Your task to perform on an android device: change the clock display to analog Image 0: 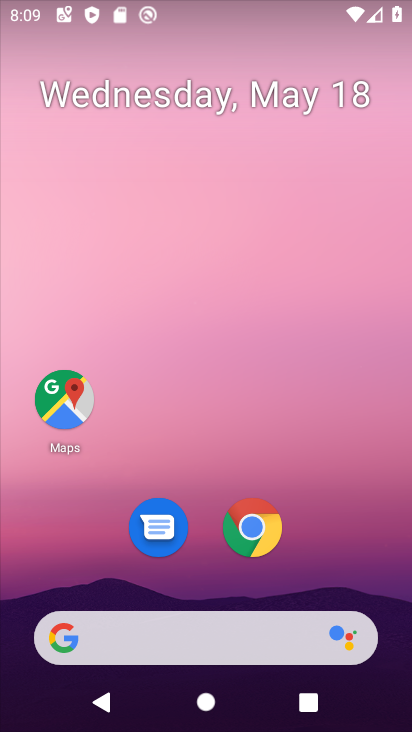
Step 0: drag from (278, 675) to (397, 234)
Your task to perform on an android device: change the clock display to analog Image 1: 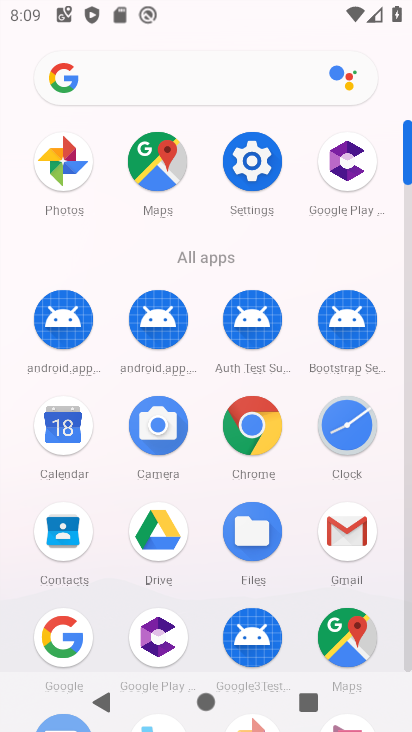
Step 1: click (355, 432)
Your task to perform on an android device: change the clock display to analog Image 2: 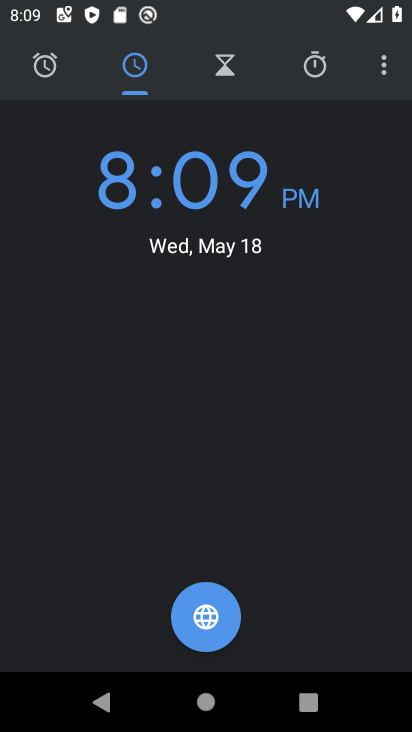
Step 2: click (380, 58)
Your task to perform on an android device: change the clock display to analog Image 3: 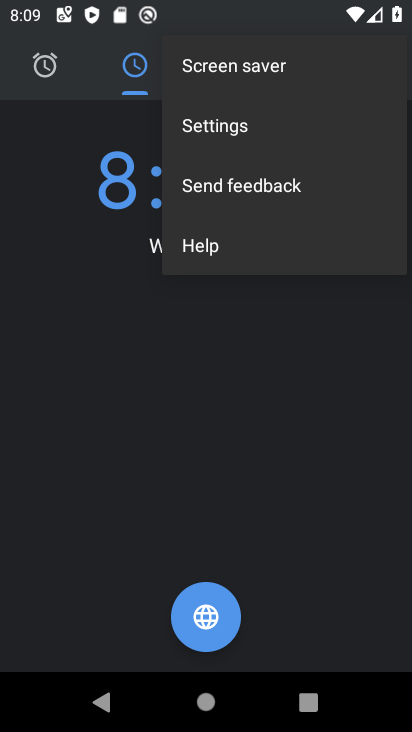
Step 3: click (214, 122)
Your task to perform on an android device: change the clock display to analog Image 4: 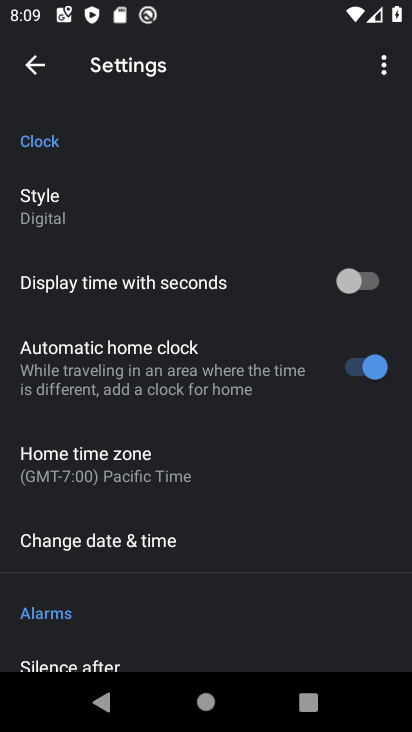
Step 4: click (92, 208)
Your task to perform on an android device: change the clock display to analog Image 5: 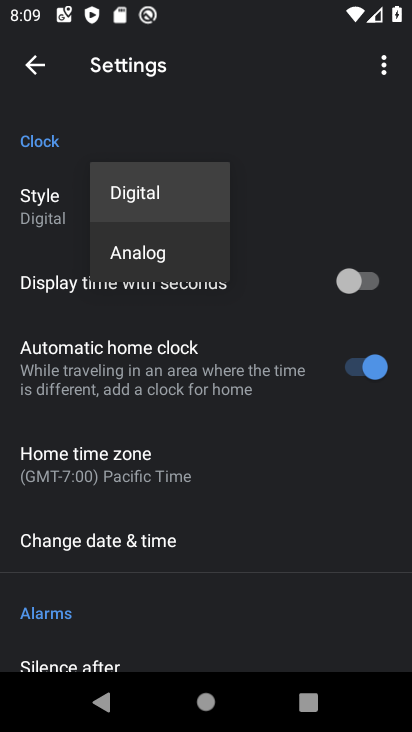
Step 5: click (133, 250)
Your task to perform on an android device: change the clock display to analog Image 6: 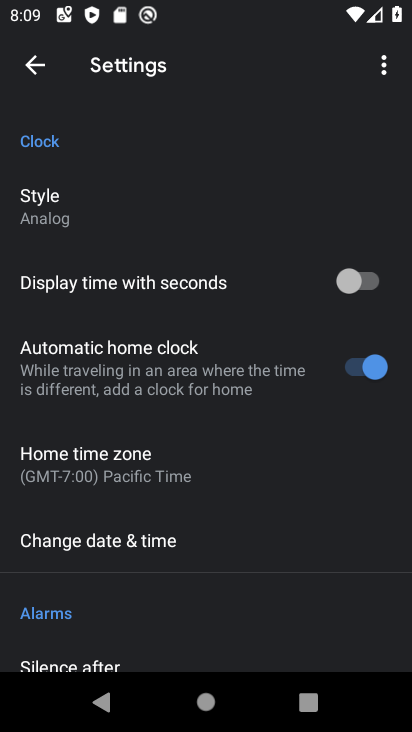
Step 6: task complete